Your task to perform on an android device: turn on bluetooth scan Image 0: 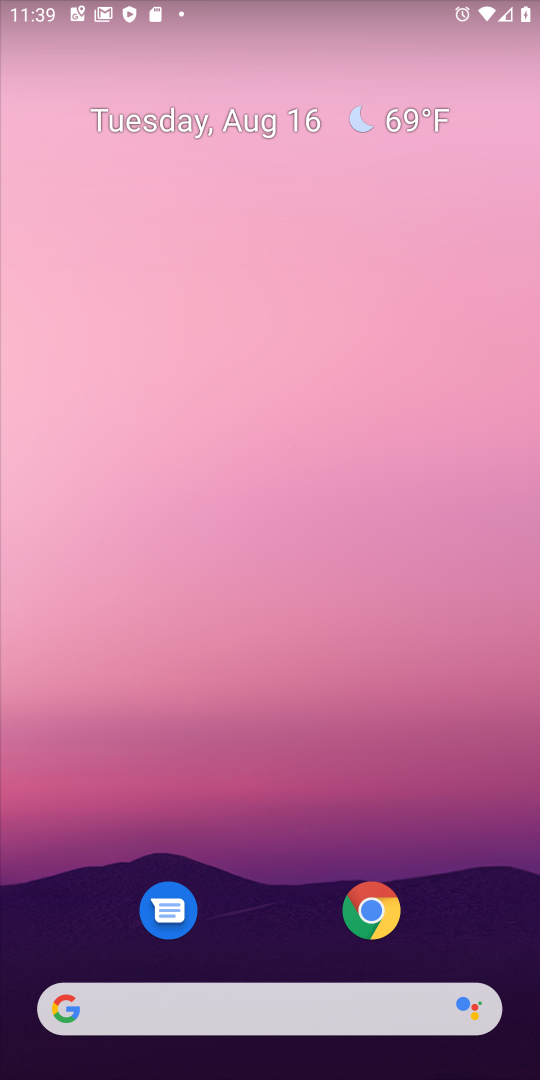
Step 0: press home button
Your task to perform on an android device: turn on bluetooth scan Image 1: 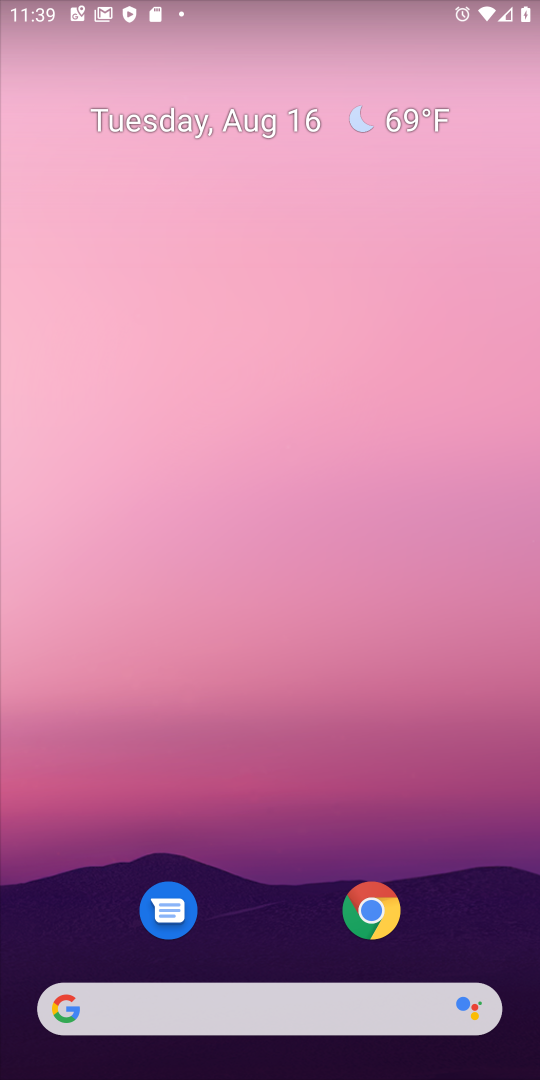
Step 1: press home button
Your task to perform on an android device: turn on bluetooth scan Image 2: 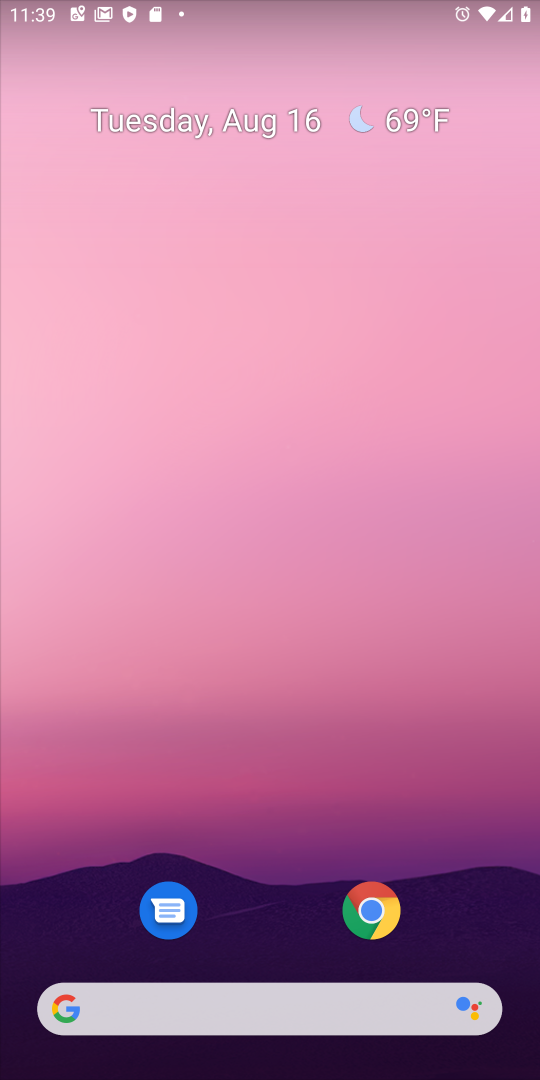
Step 2: drag from (294, 918) to (315, 185)
Your task to perform on an android device: turn on bluetooth scan Image 3: 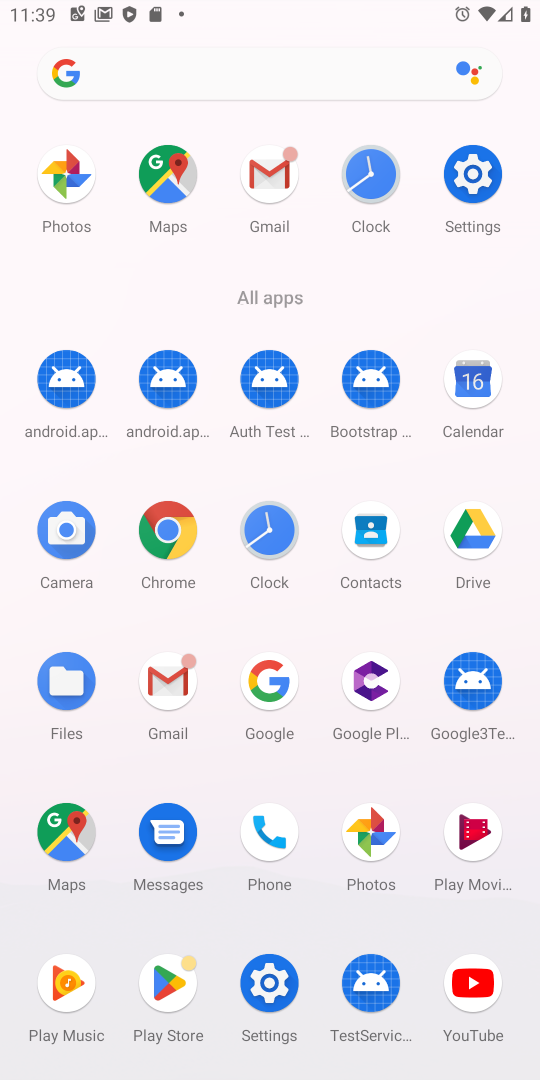
Step 3: click (268, 969)
Your task to perform on an android device: turn on bluetooth scan Image 4: 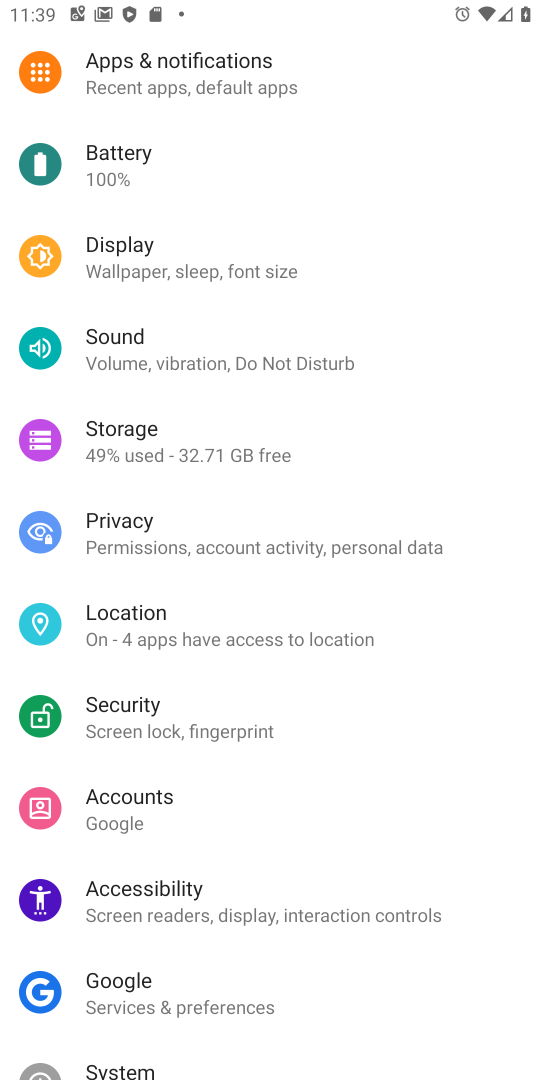
Step 4: click (172, 612)
Your task to perform on an android device: turn on bluetooth scan Image 5: 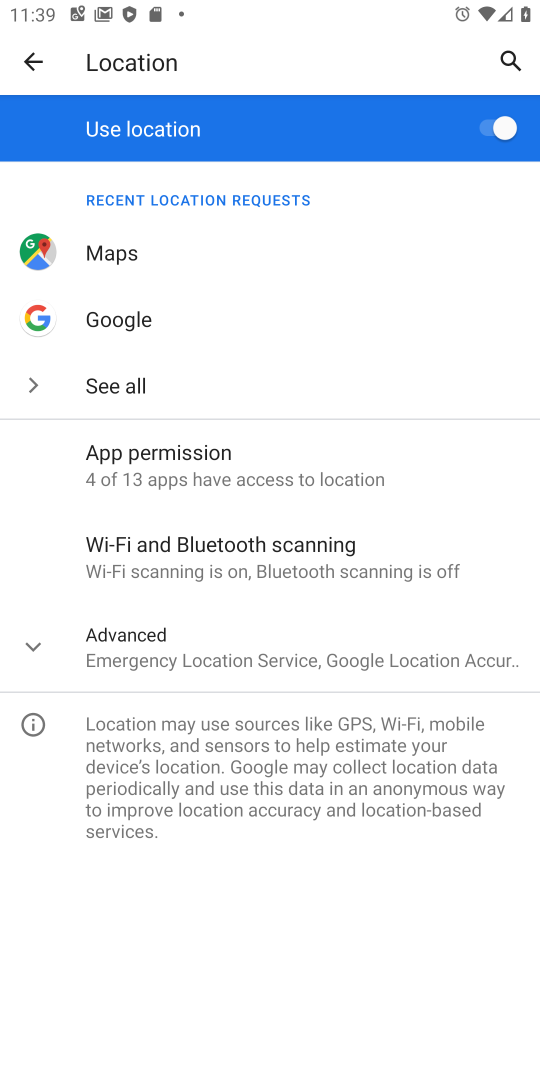
Step 5: click (149, 577)
Your task to perform on an android device: turn on bluetooth scan Image 6: 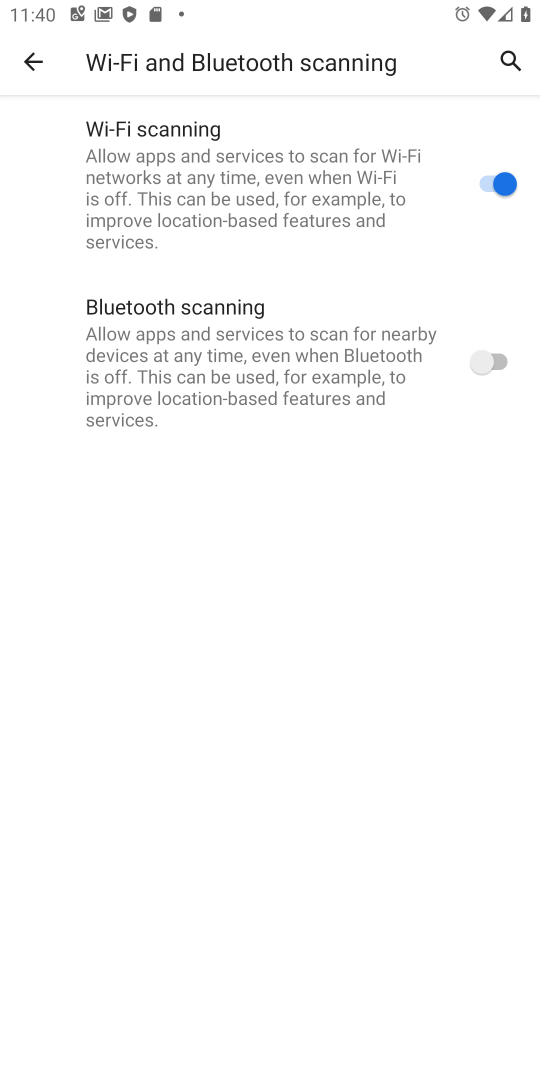
Step 6: click (479, 360)
Your task to perform on an android device: turn on bluetooth scan Image 7: 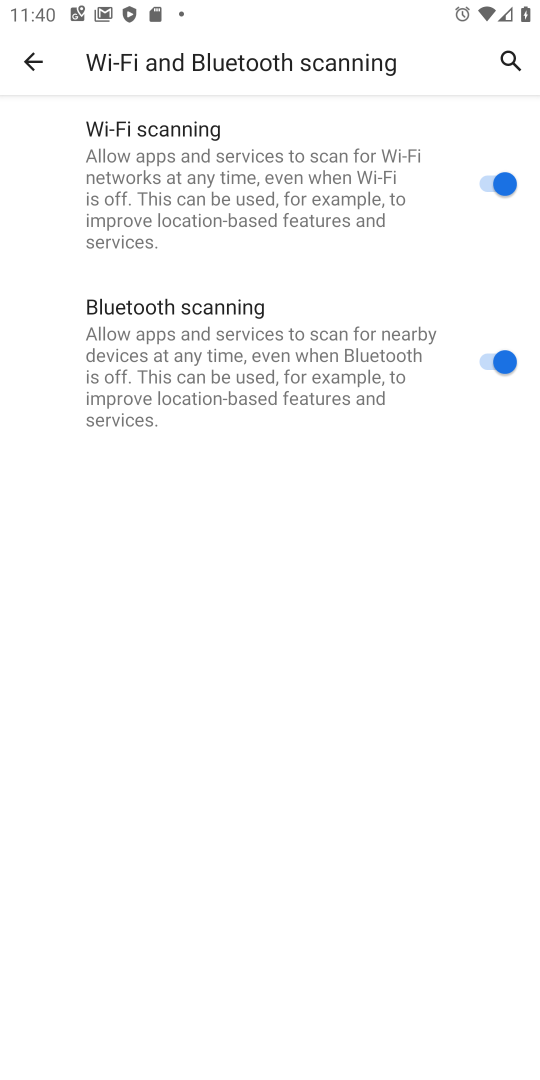
Step 7: task complete